Your task to perform on an android device: What's the news in India? Image 0: 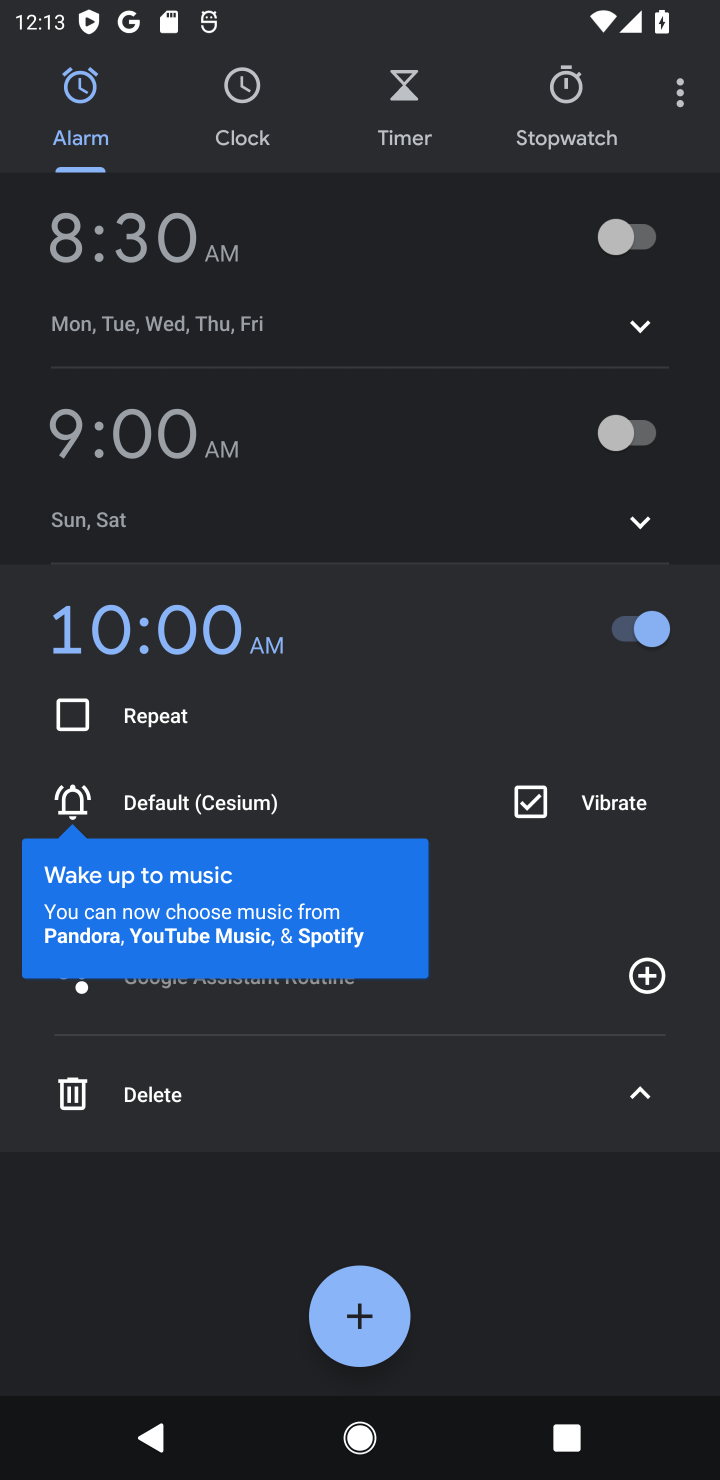
Step 0: press home button
Your task to perform on an android device: What's the news in India? Image 1: 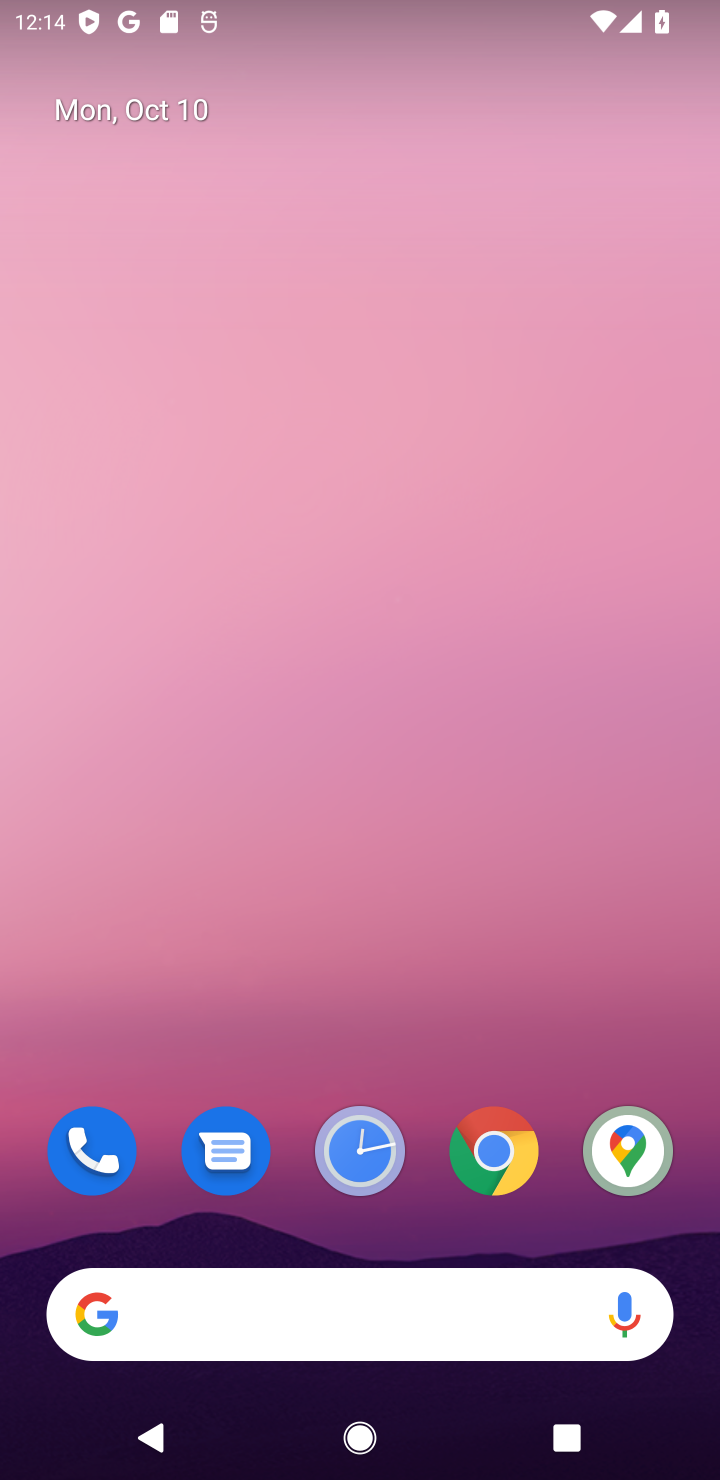
Step 1: click (327, 1309)
Your task to perform on an android device: What's the news in India? Image 2: 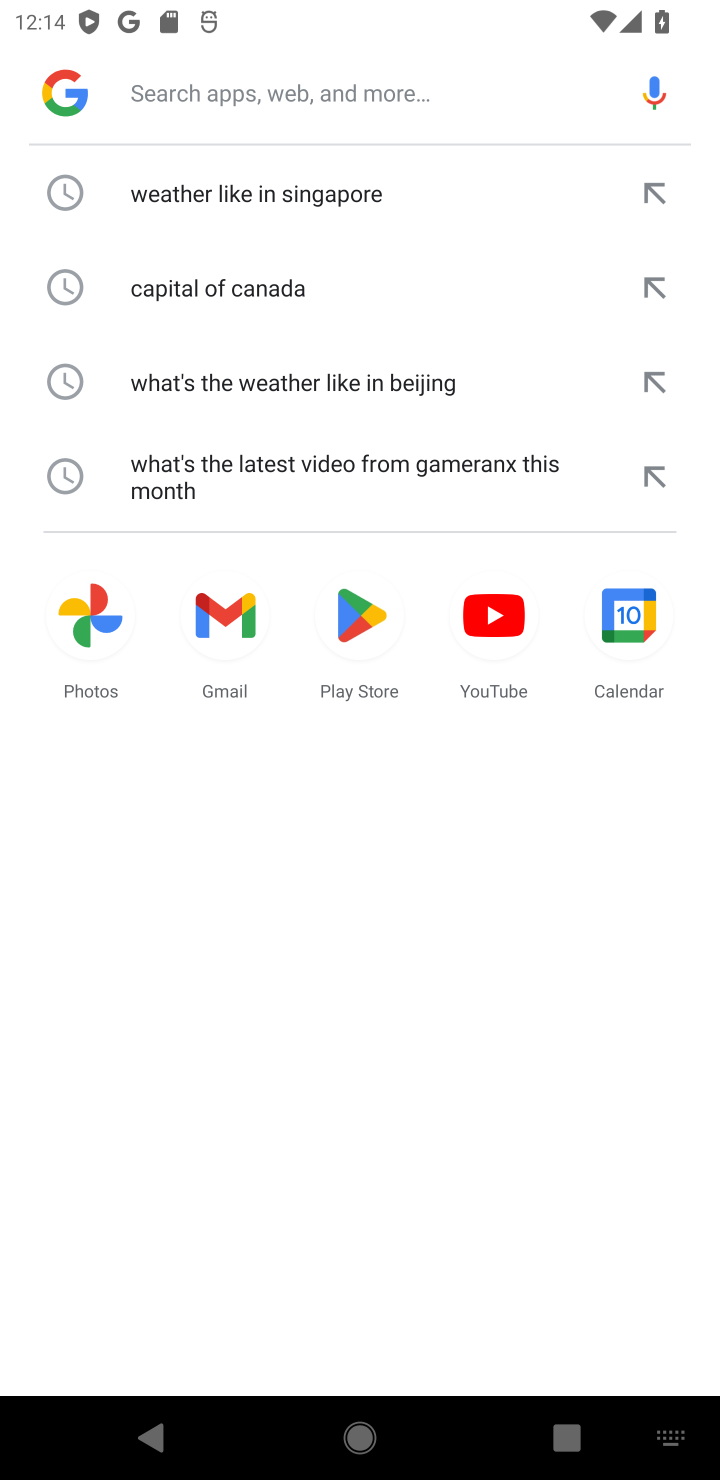
Step 2: type "nnews in india"
Your task to perform on an android device: What's the news in India? Image 3: 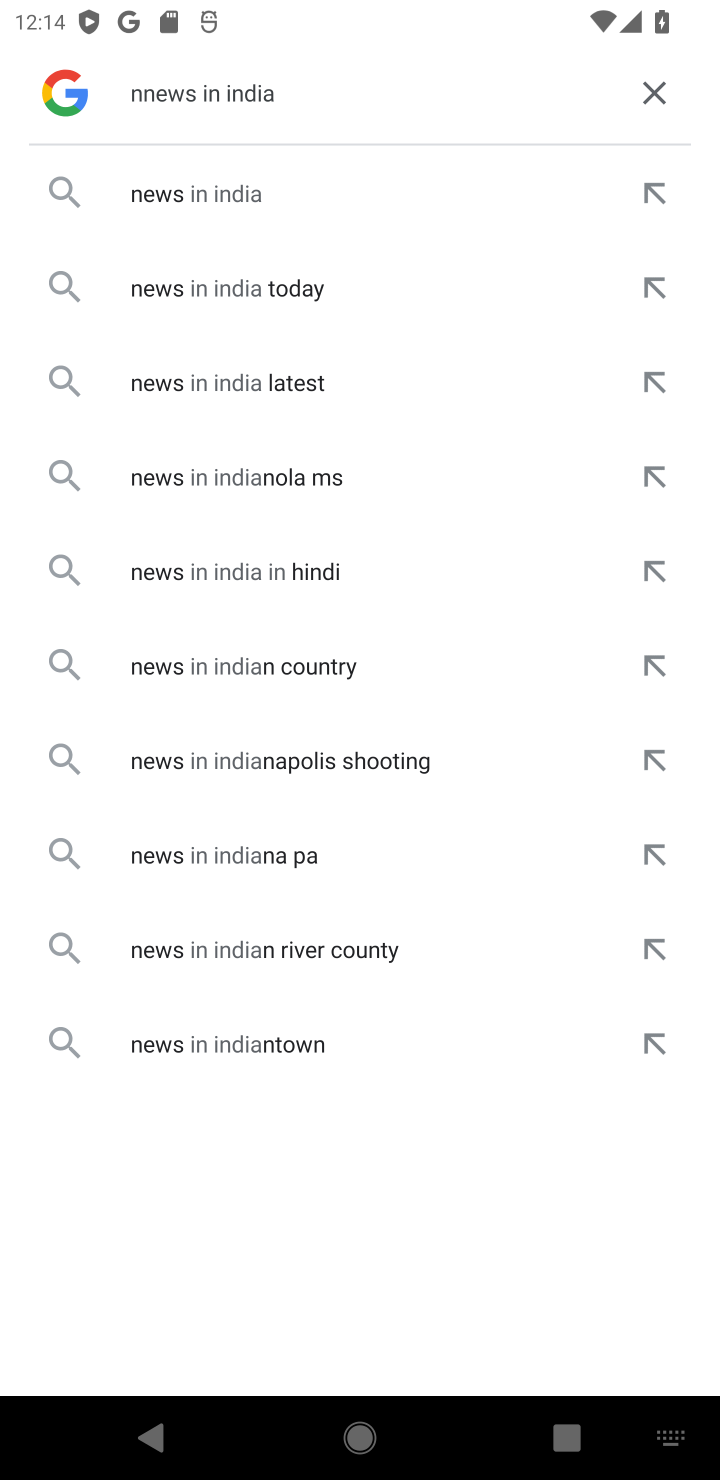
Step 3: click (212, 189)
Your task to perform on an android device: What's the news in India? Image 4: 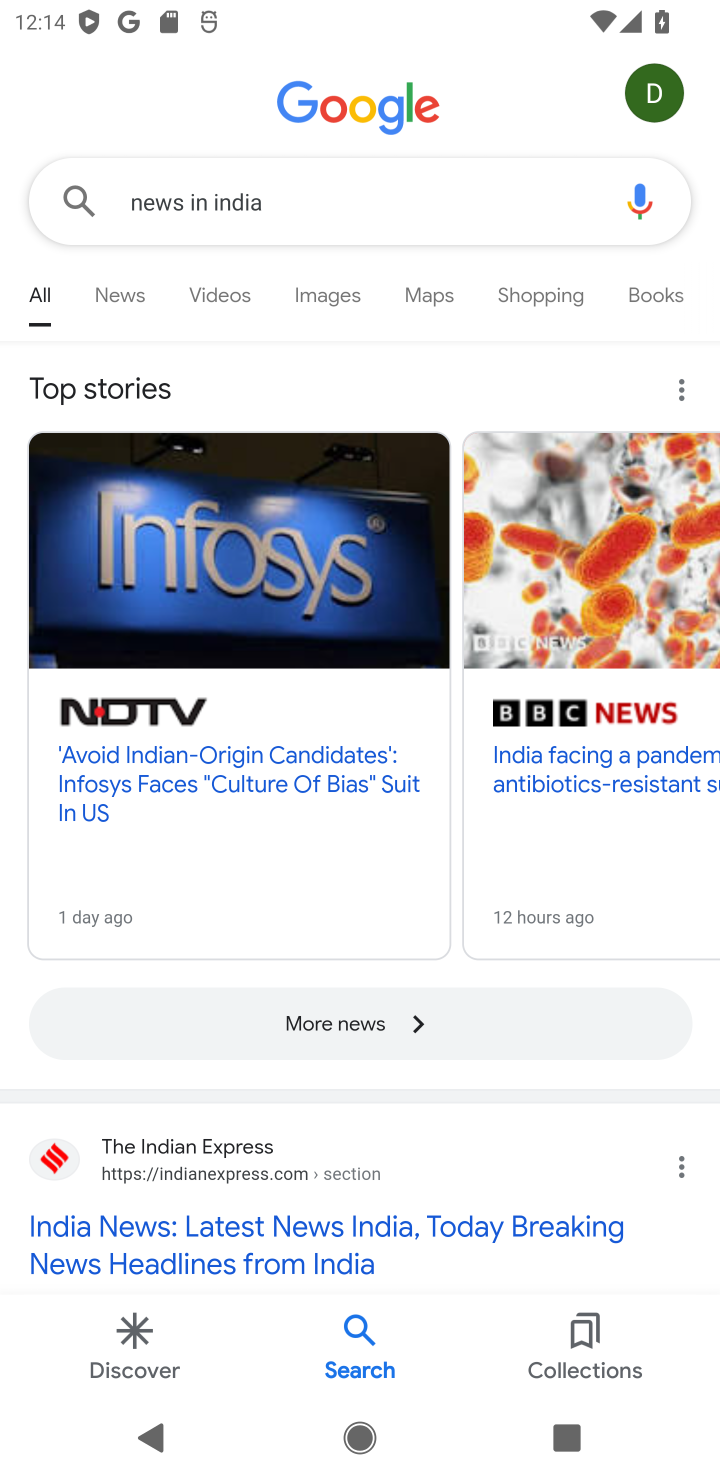
Step 4: click (196, 1225)
Your task to perform on an android device: What's the news in India? Image 5: 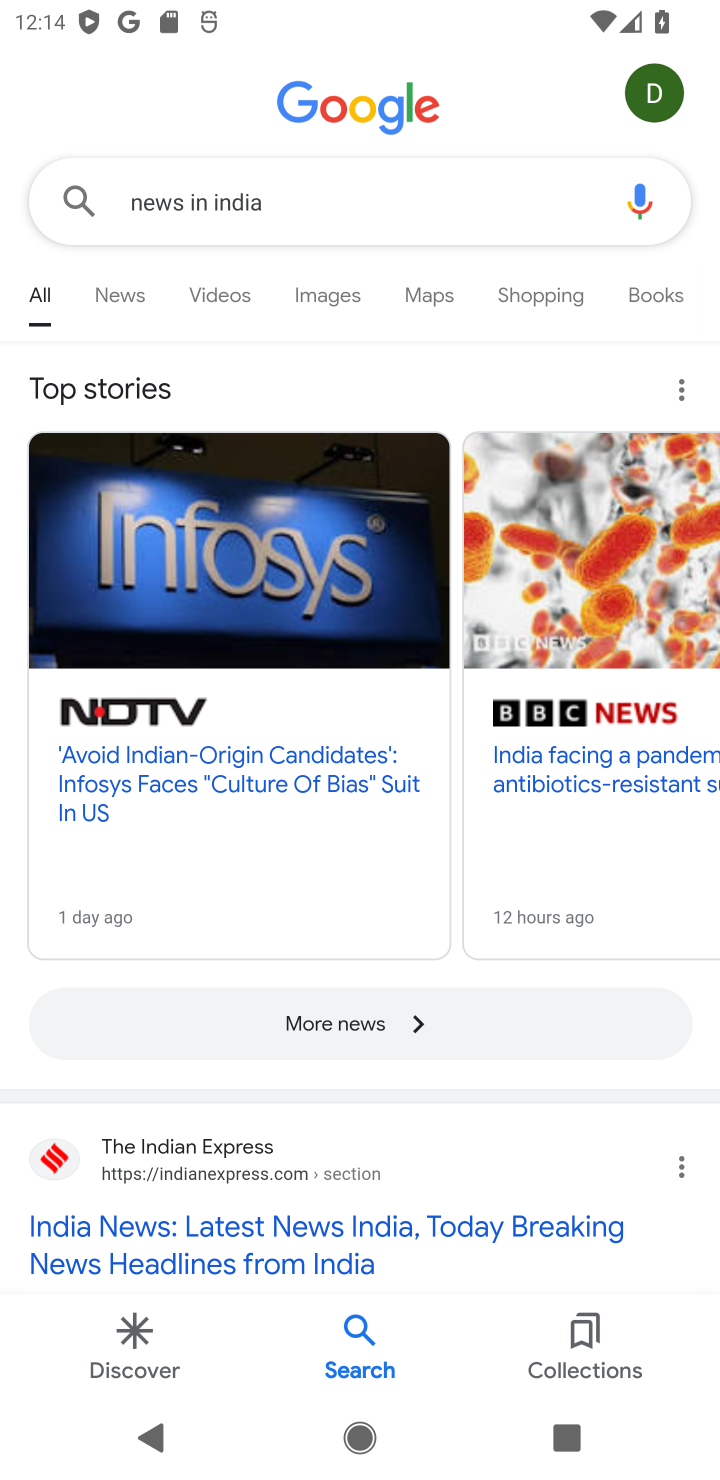
Step 5: click (346, 1233)
Your task to perform on an android device: What's the news in India? Image 6: 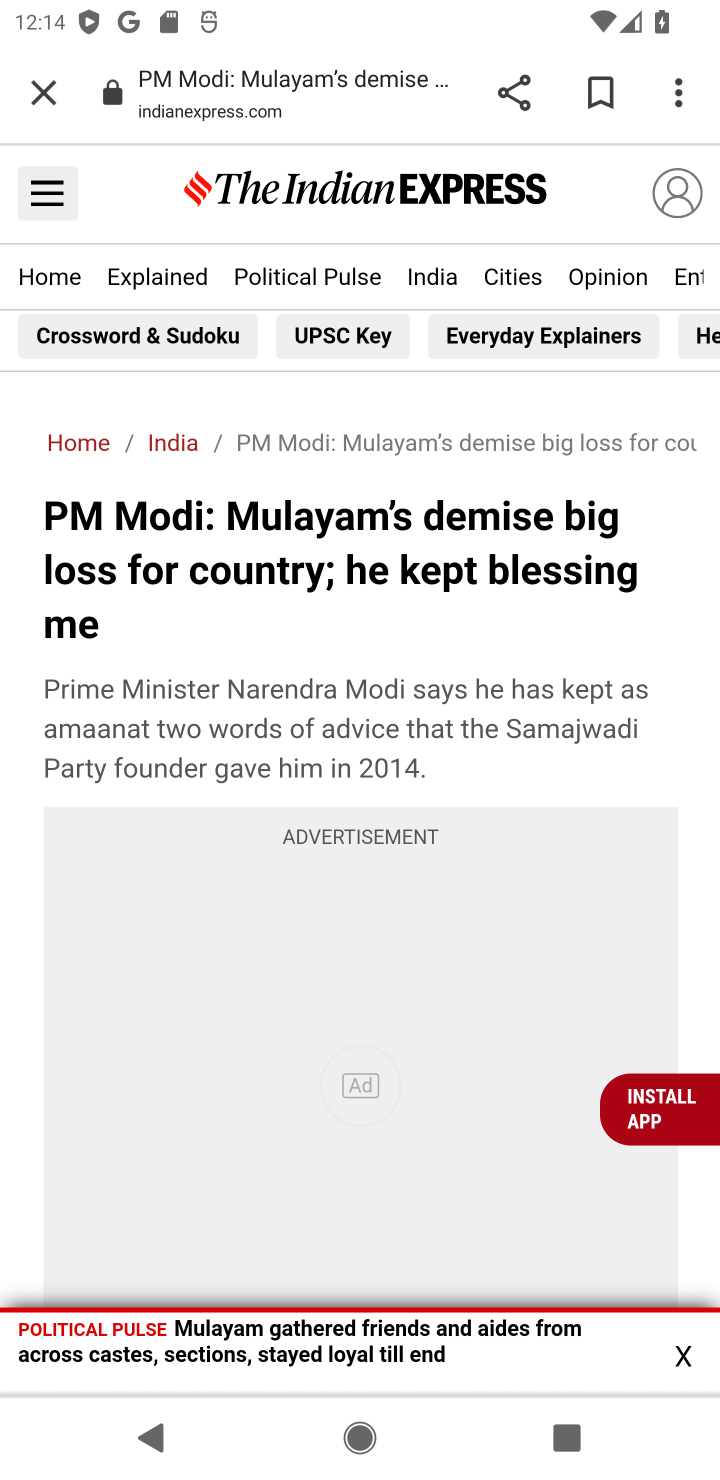
Step 6: task complete